Your task to perform on an android device: show emergency info Image 0: 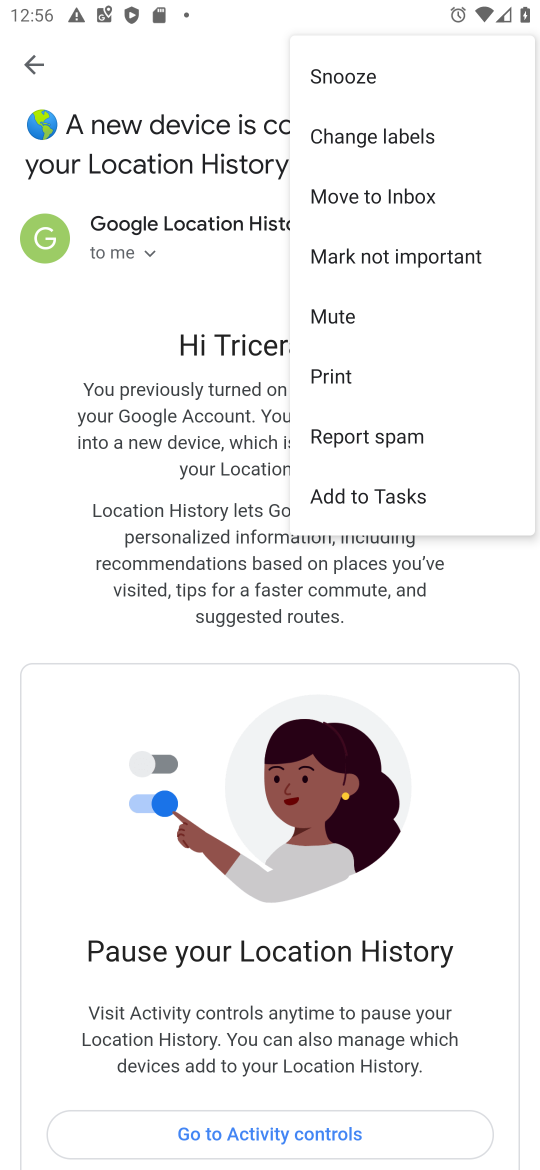
Step 0: press home button
Your task to perform on an android device: show emergency info Image 1: 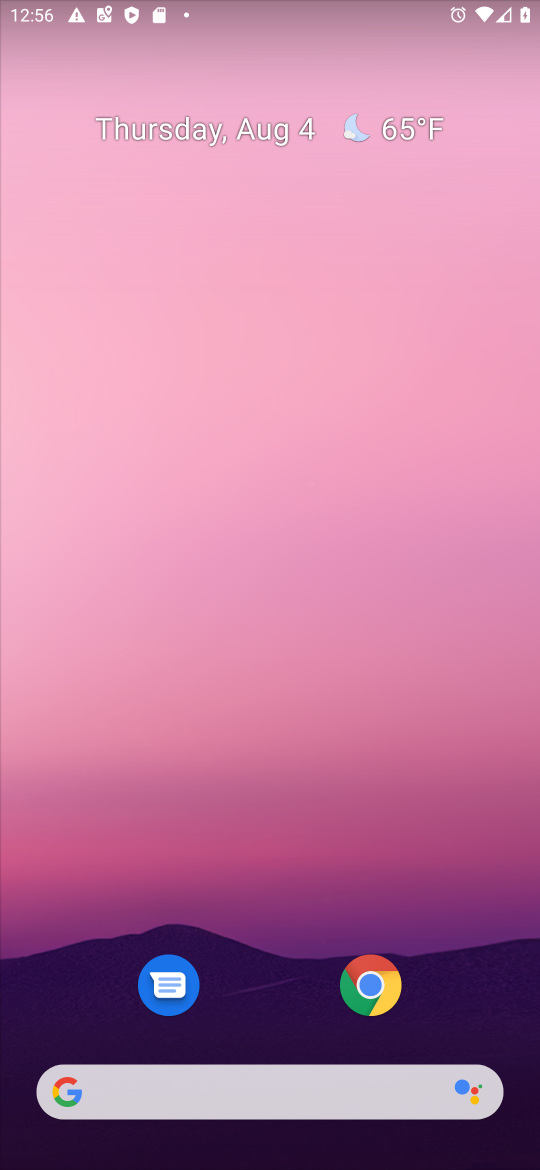
Step 1: drag from (263, 935) to (319, 431)
Your task to perform on an android device: show emergency info Image 2: 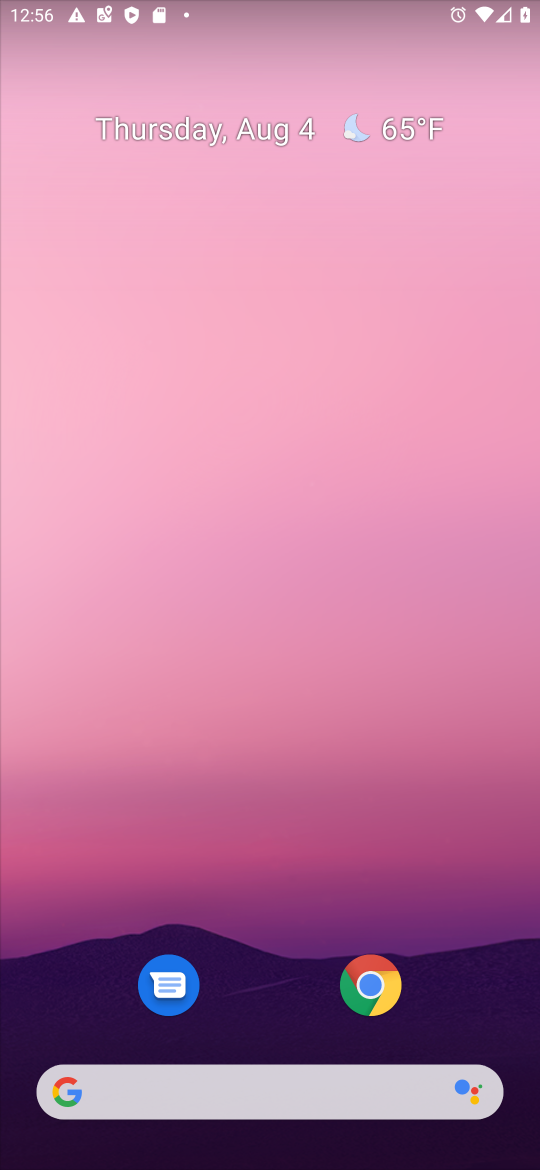
Step 2: drag from (257, 937) to (179, 71)
Your task to perform on an android device: show emergency info Image 3: 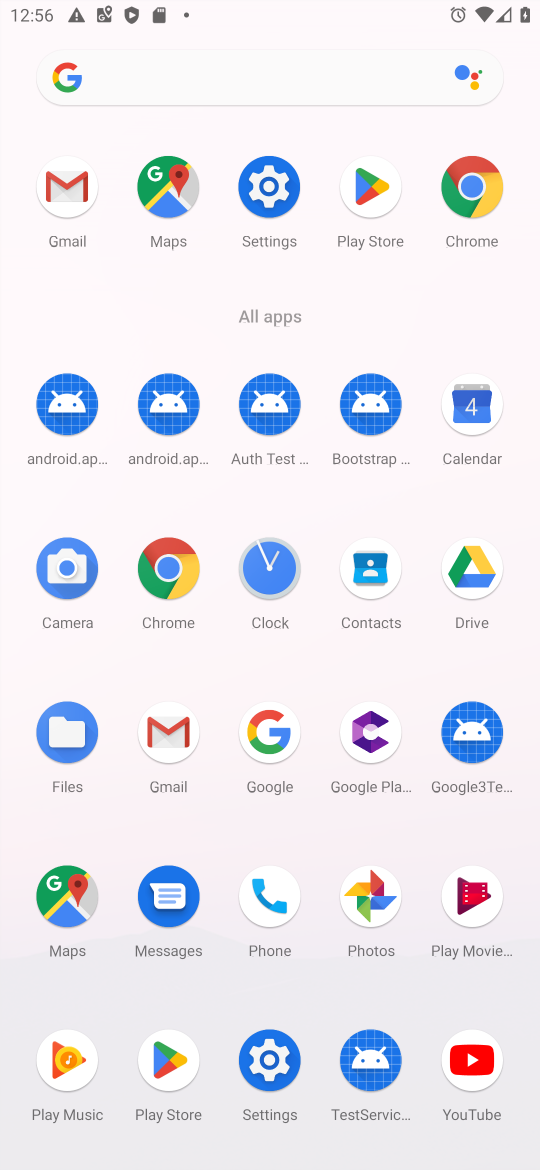
Step 3: click (265, 175)
Your task to perform on an android device: show emergency info Image 4: 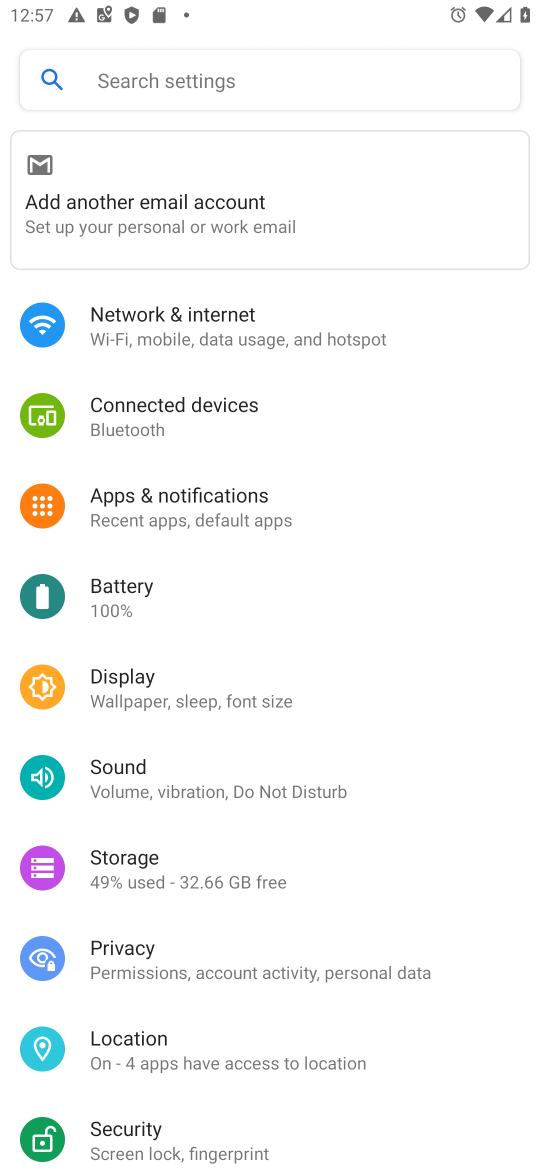
Step 4: drag from (196, 1010) to (302, 449)
Your task to perform on an android device: show emergency info Image 5: 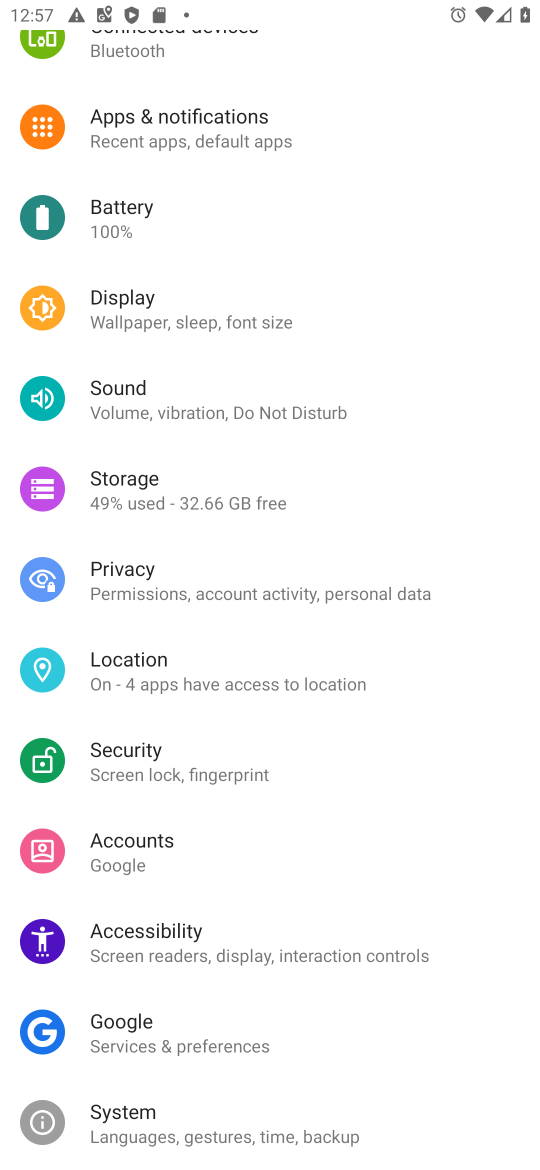
Step 5: drag from (244, 1094) to (239, 498)
Your task to perform on an android device: show emergency info Image 6: 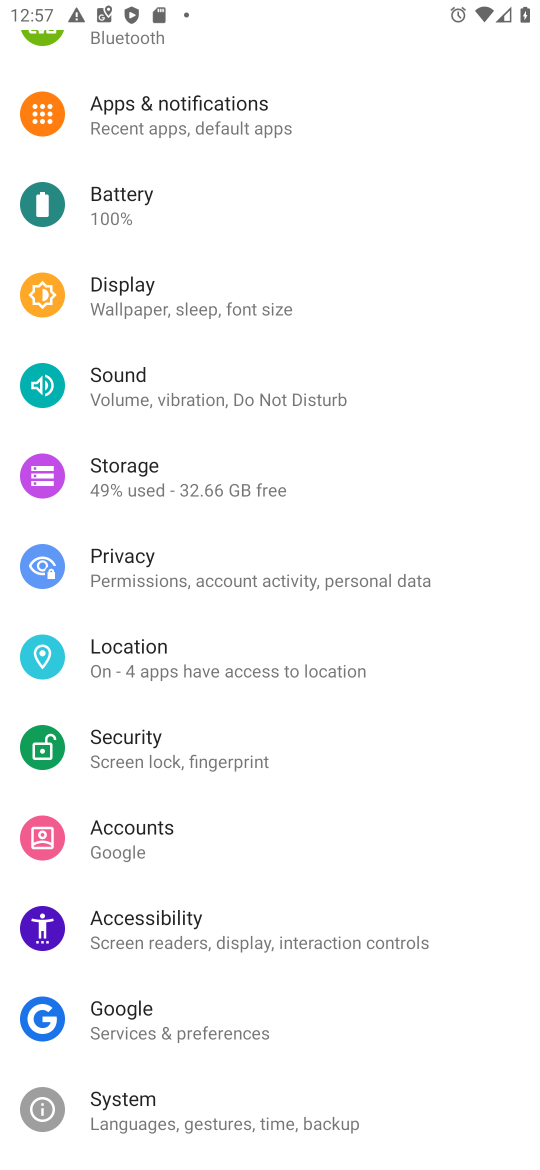
Step 6: drag from (155, 1077) to (209, 495)
Your task to perform on an android device: show emergency info Image 7: 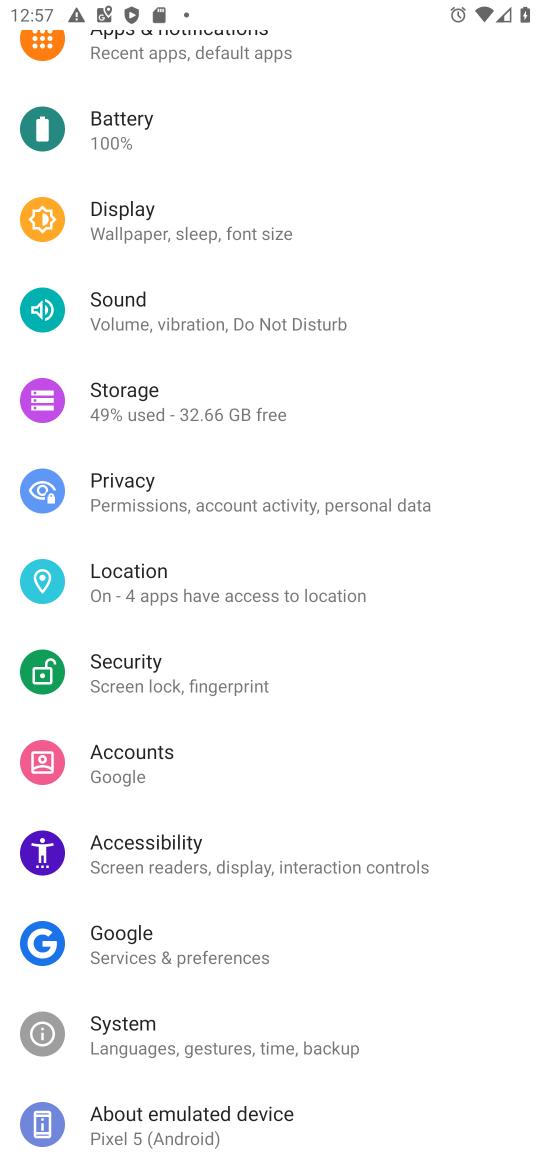
Step 7: click (156, 1117)
Your task to perform on an android device: show emergency info Image 8: 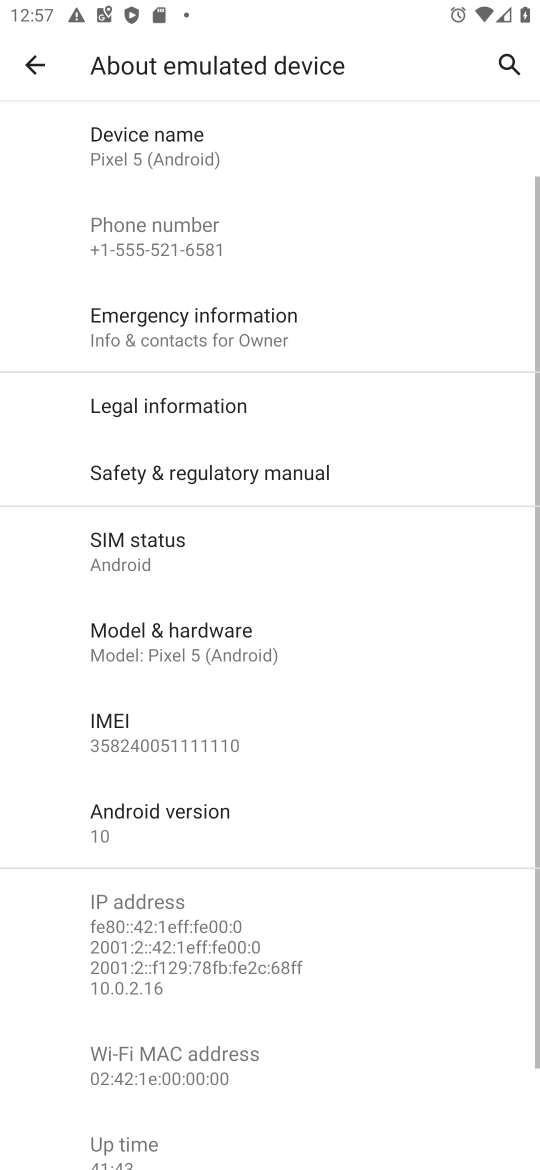
Step 8: click (166, 322)
Your task to perform on an android device: show emergency info Image 9: 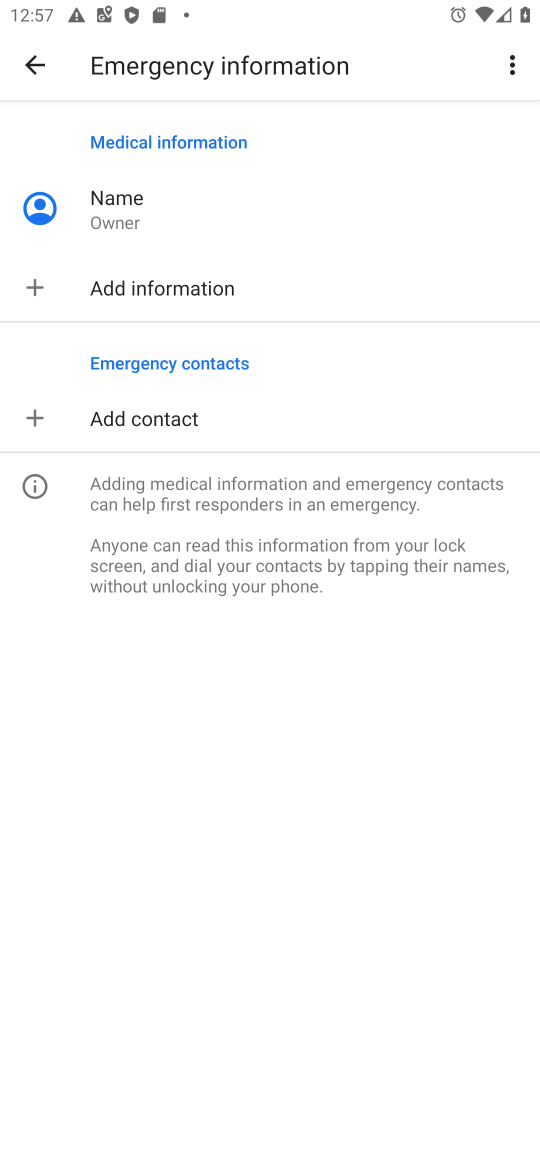
Step 9: task complete